Your task to perform on an android device: set the stopwatch Image 0: 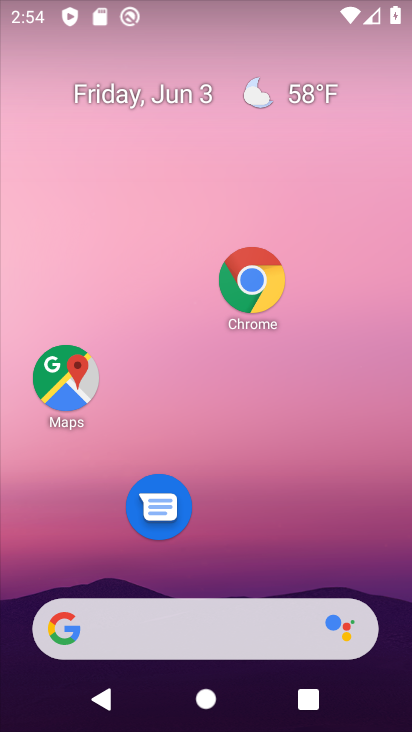
Step 0: drag from (264, 362) to (277, 29)
Your task to perform on an android device: set the stopwatch Image 1: 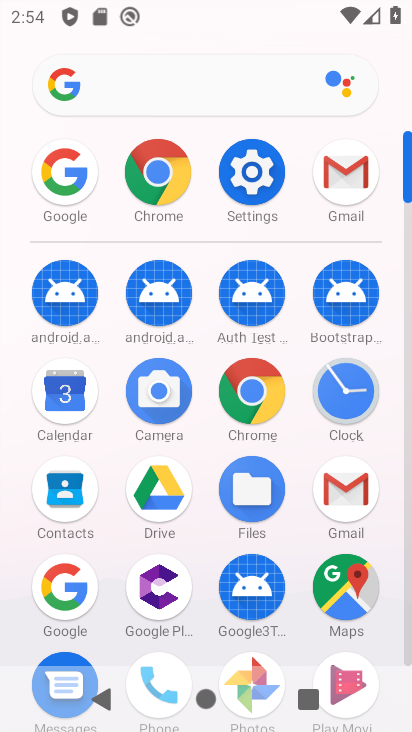
Step 1: click (349, 400)
Your task to perform on an android device: set the stopwatch Image 2: 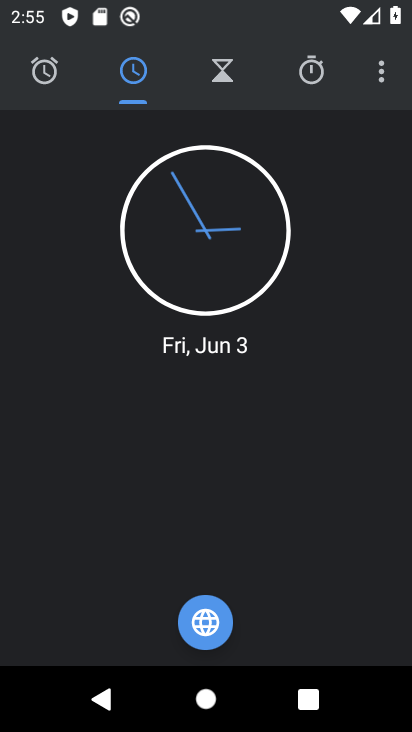
Step 2: click (312, 70)
Your task to perform on an android device: set the stopwatch Image 3: 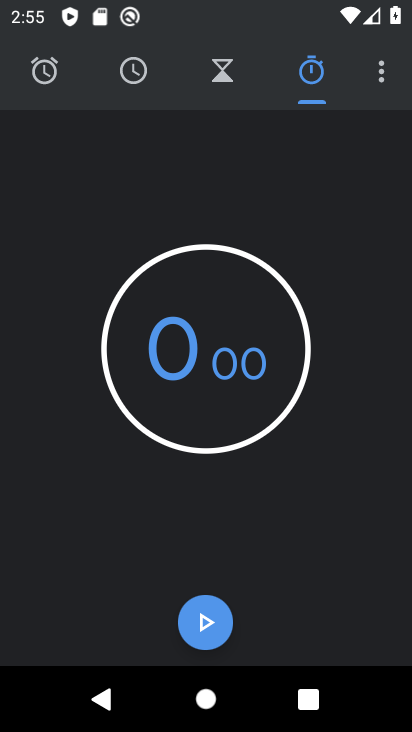
Step 3: click (208, 628)
Your task to perform on an android device: set the stopwatch Image 4: 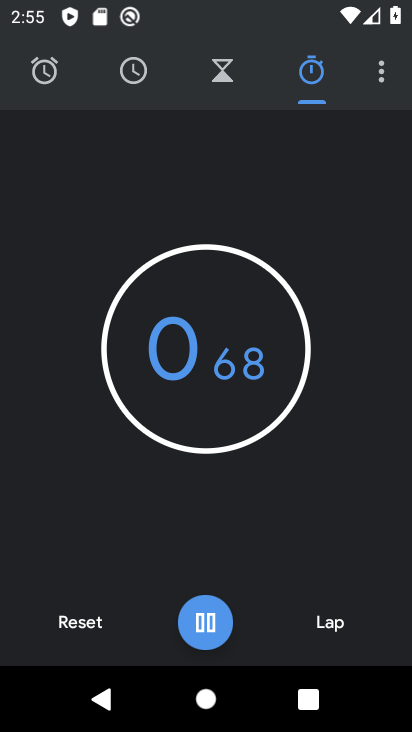
Step 4: click (208, 628)
Your task to perform on an android device: set the stopwatch Image 5: 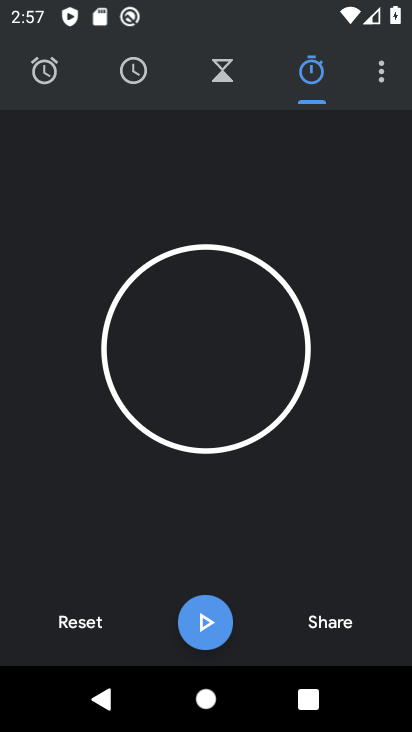
Step 5: task complete